Your task to perform on an android device: check google app version Image 0: 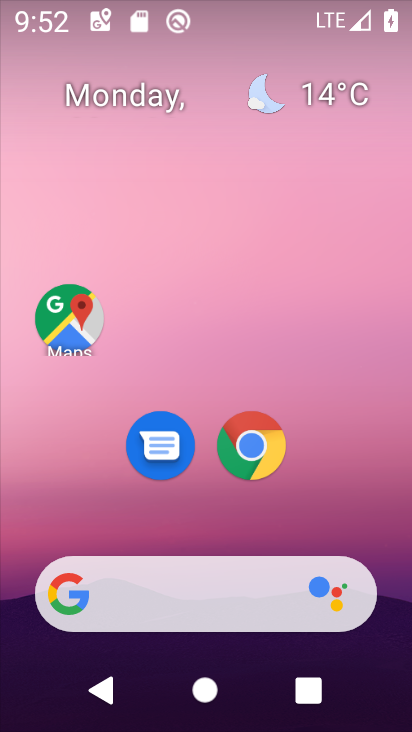
Step 0: press home button
Your task to perform on an android device: check google app version Image 1: 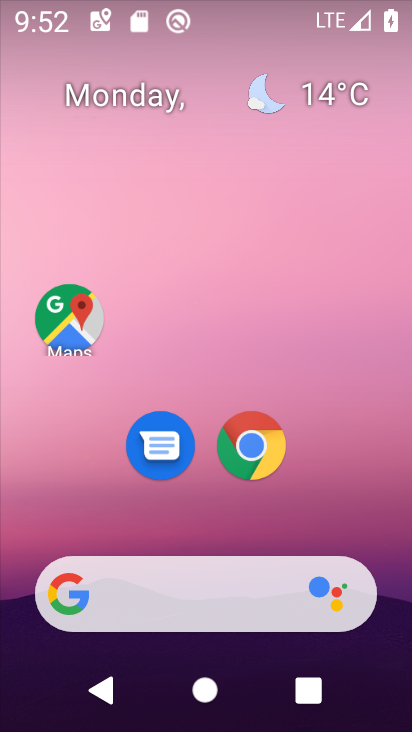
Step 1: drag from (210, 526) to (229, 34)
Your task to perform on an android device: check google app version Image 2: 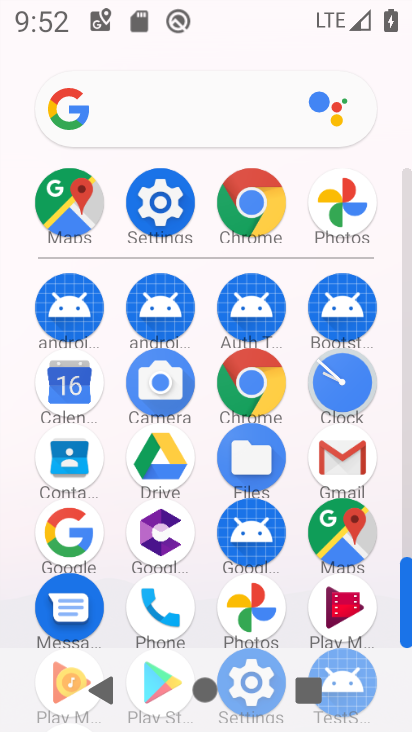
Step 2: click (63, 525)
Your task to perform on an android device: check google app version Image 3: 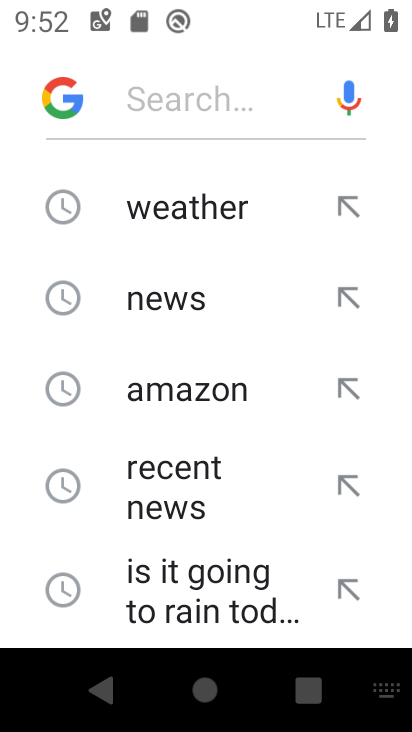
Step 3: press back button
Your task to perform on an android device: check google app version Image 4: 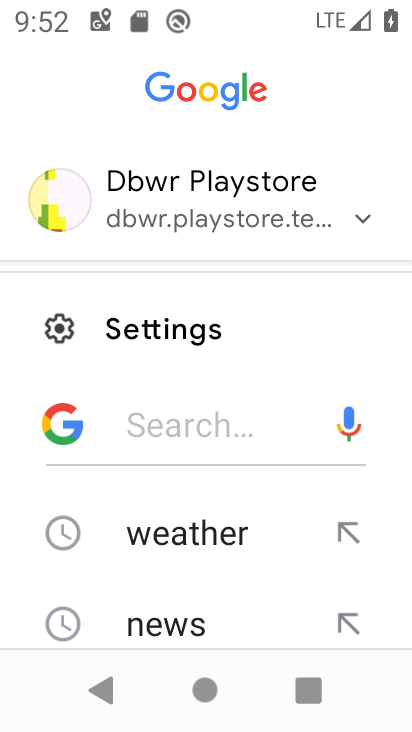
Step 4: press back button
Your task to perform on an android device: check google app version Image 5: 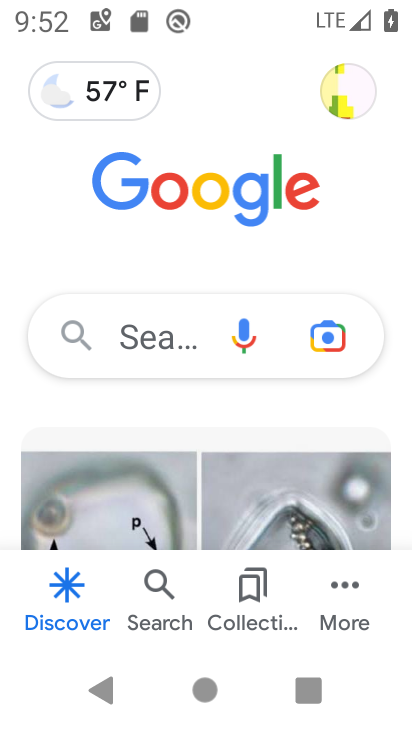
Step 5: click (343, 585)
Your task to perform on an android device: check google app version Image 6: 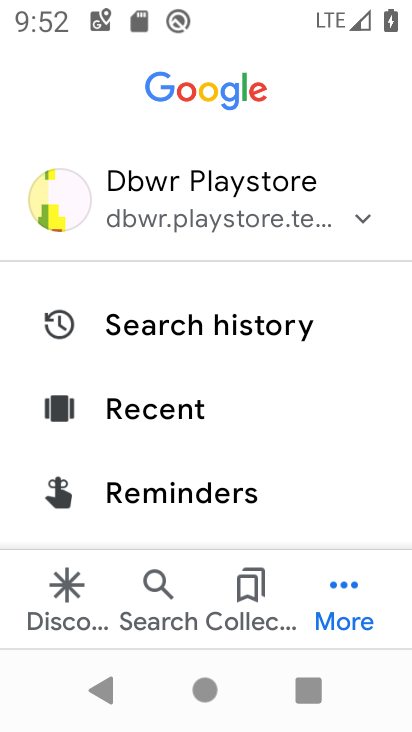
Step 6: drag from (205, 510) to (249, 160)
Your task to perform on an android device: check google app version Image 7: 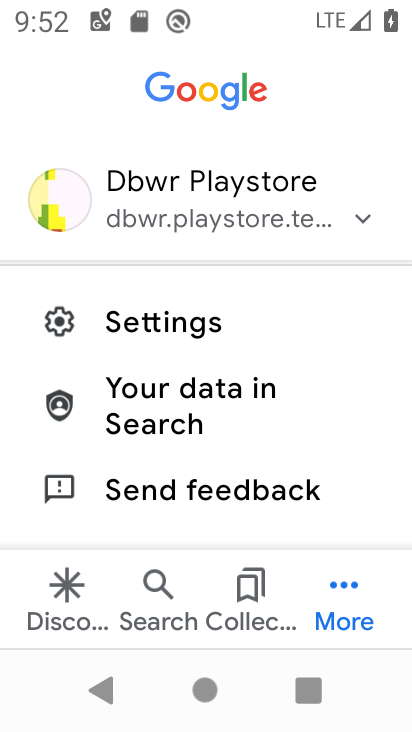
Step 7: click (193, 324)
Your task to perform on an android device: check google app version Image 8: 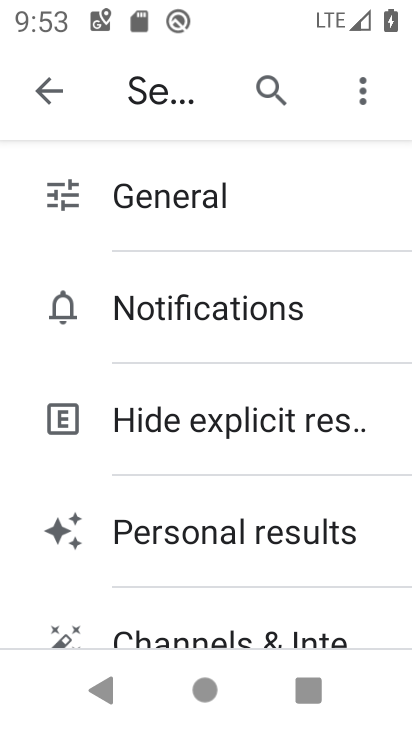
Step 8: drag from (240, 594) to (265, 115)
Your task to perform on an android device: check google app version Image 9: 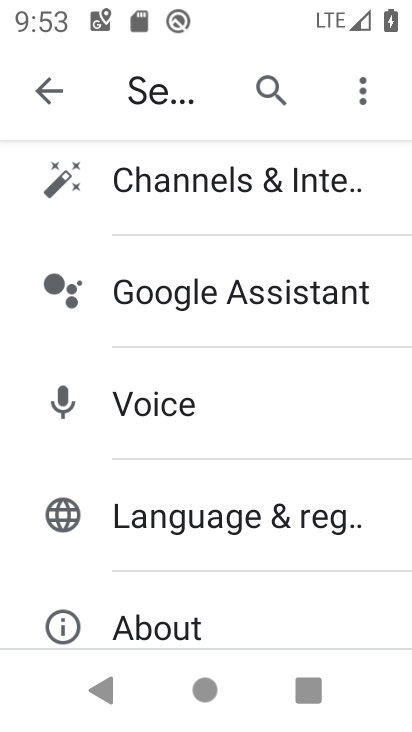
Step 9: click (229, 610)
Your task to perform on an android device: check google app version Image 10: 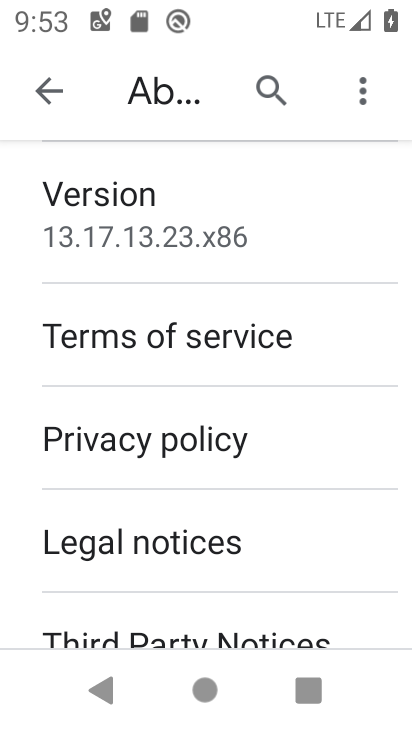
Step 10: task complete